Your task to perform on an android device: Check the weather Image 0: 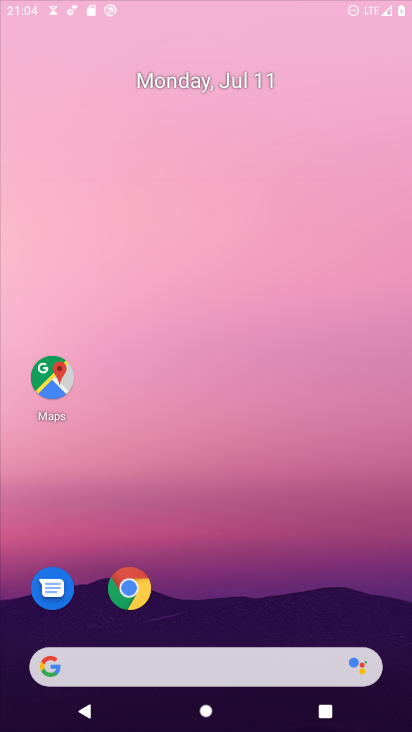
Step 0: press home button
Your task to perform on an android device: Check the weather Image 1: 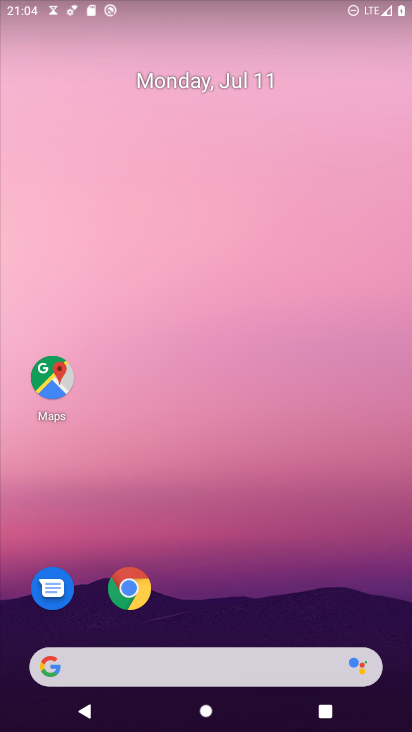
Step 1: click (53, 670)
Your task to perform on an android device: Check the weather Image 2: 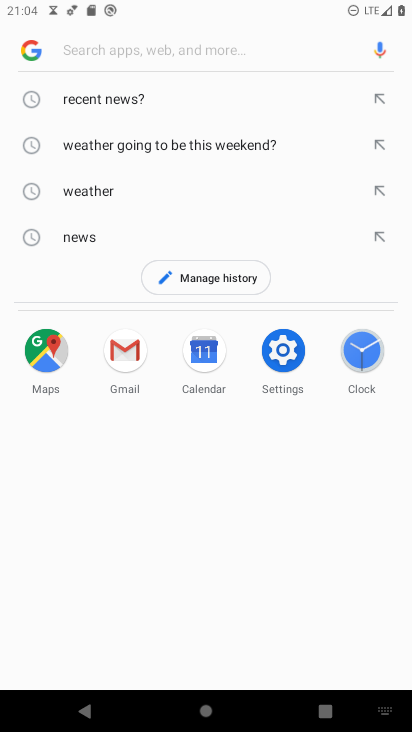
Step 2: click (91, 186)
Your task to perform on an android device: Check the weather Image 3: 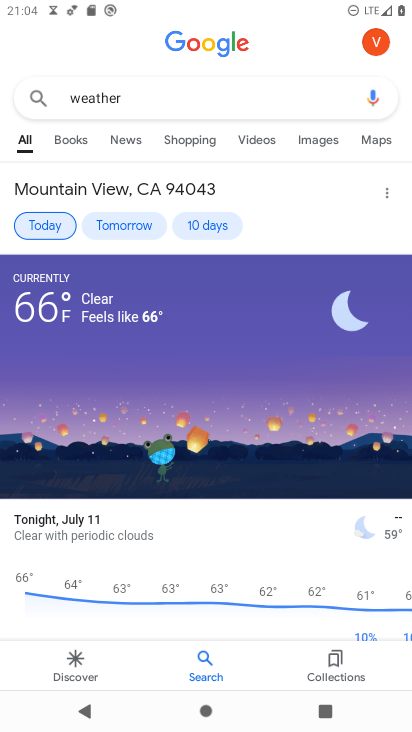
Step 3: task complete